Your task to perform on an android device: turn on location history Image 0: 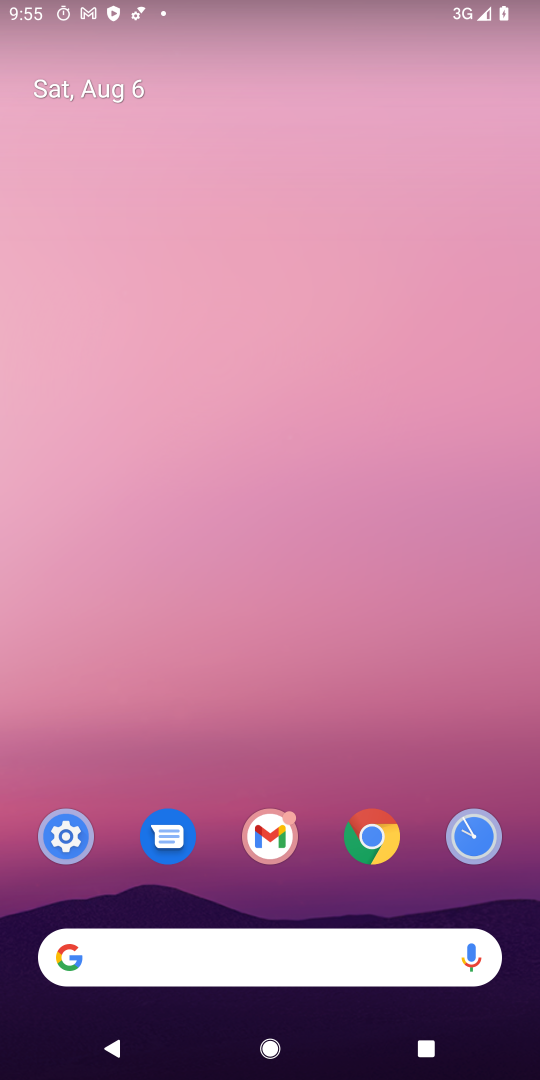
Step 0: drag from (427, 902) to (227, 72)
Your task to perform on an android device: turn on location history Image 1: 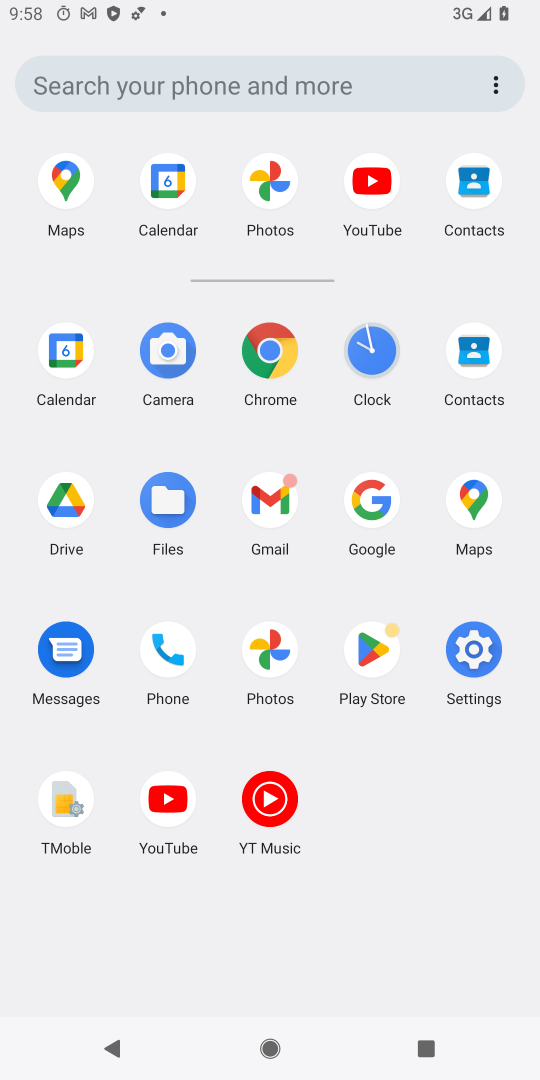
Step 1: click (481, 654)
Your task to perform on an android device: turn on location history Image 2: 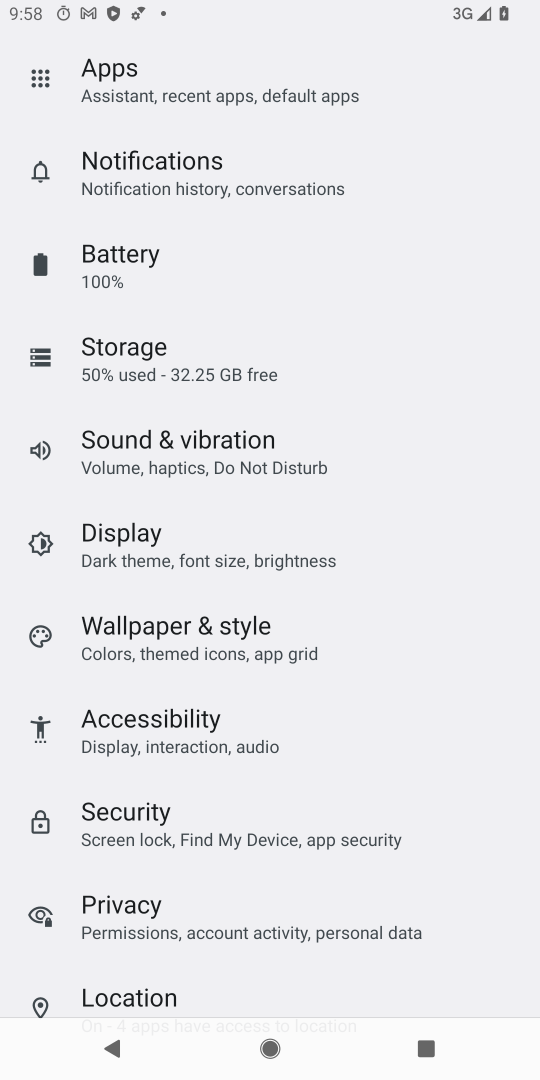
Step 2: click (121, 1005)
Your task to perform on an android device: turn on location history Image 3: 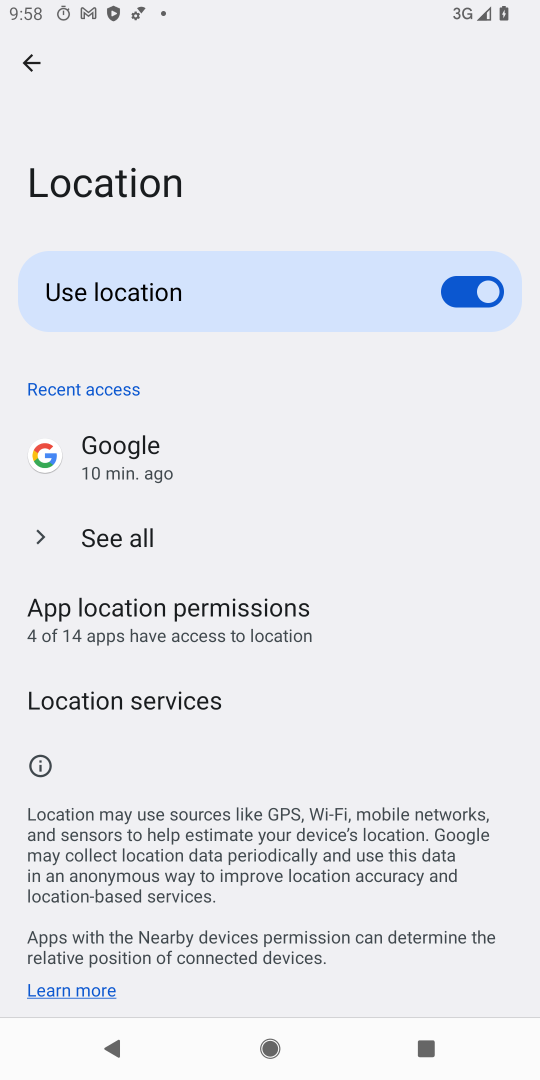
Step 3: click (195, 701)
Your task to perform on an android device: turn on location history Image 4: 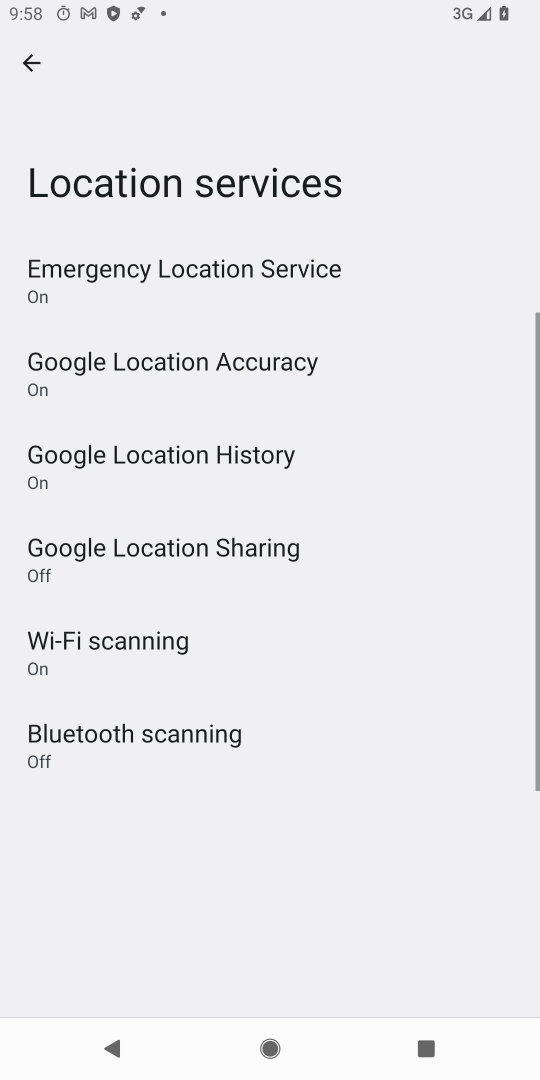
Step 4: click (199, 493)
Your task to perform on an android device: turn on location history Image 5: 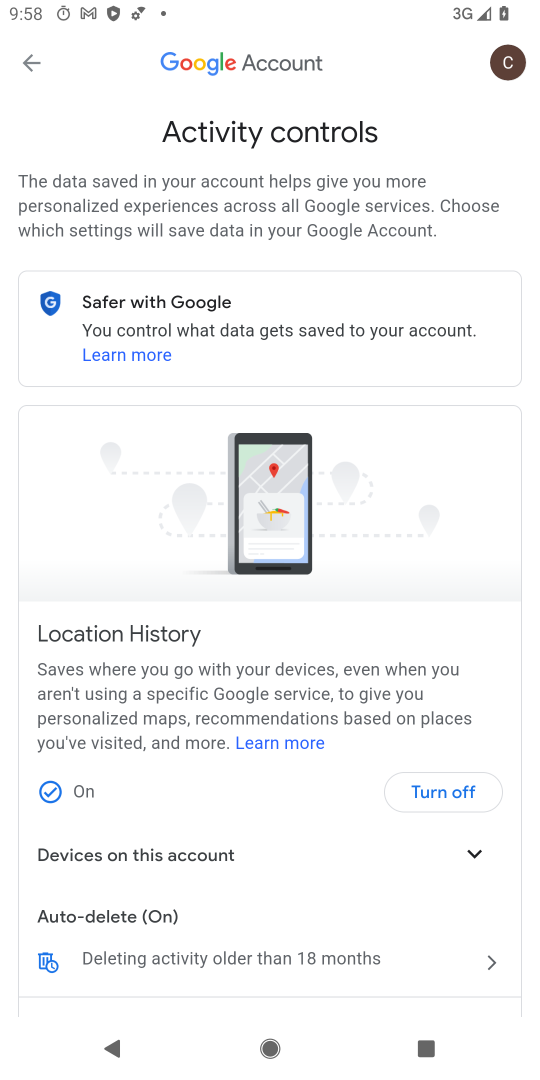
Step 5: click (425, 787)
Your task to perform on an android device: turn on location history Image 6: 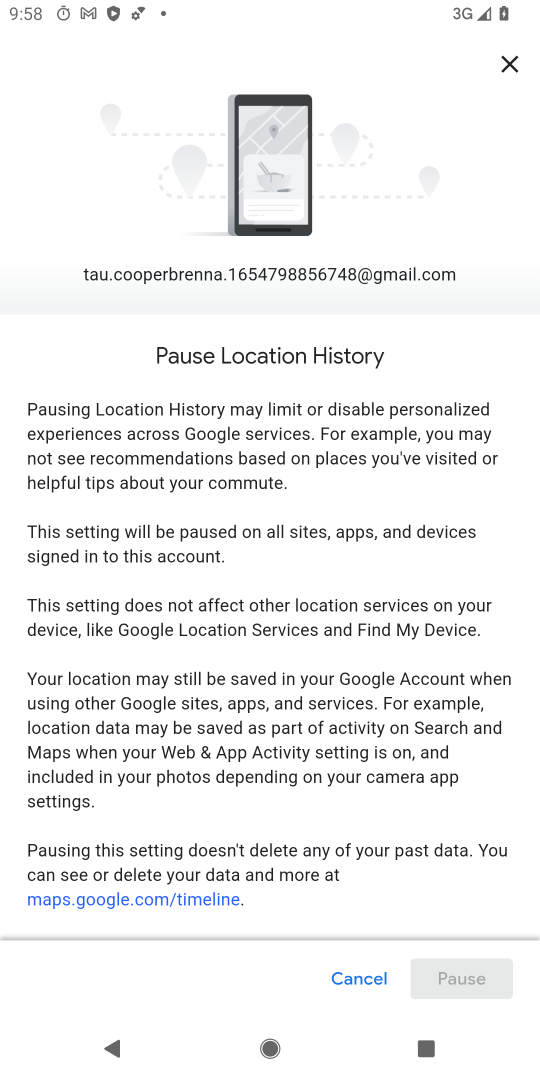
Step 6: task complete